Your task to perform on an android device: check data usage Image 0: 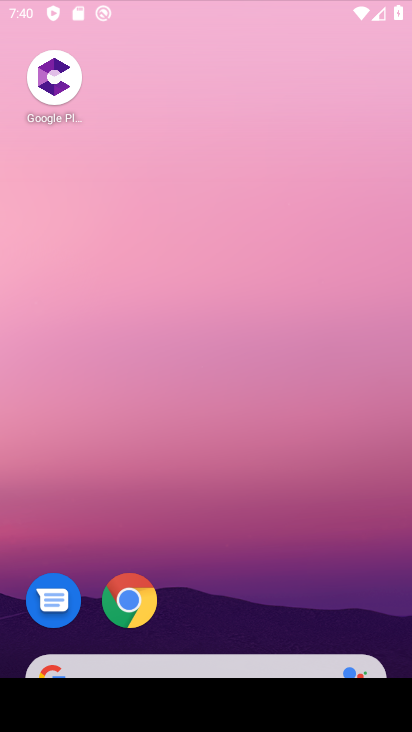
Step 0: click (234, 39)
Your task to perform on an android device: check data usage Image 1: 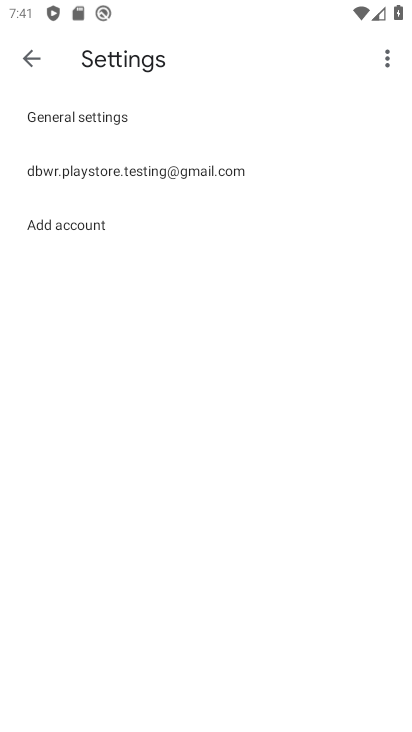
Step 1: drag from (206, 581) to (246, 68)
Your task to perform on an android device: check data usage Image 2: 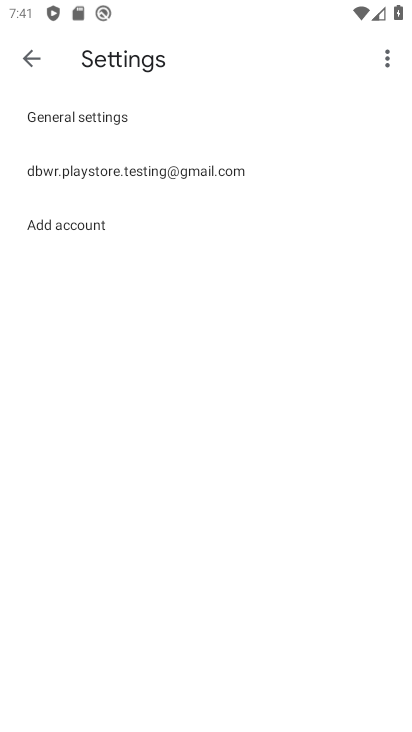
Step 2: press home button
Your task to perform on an android device: check data usage Image 3: 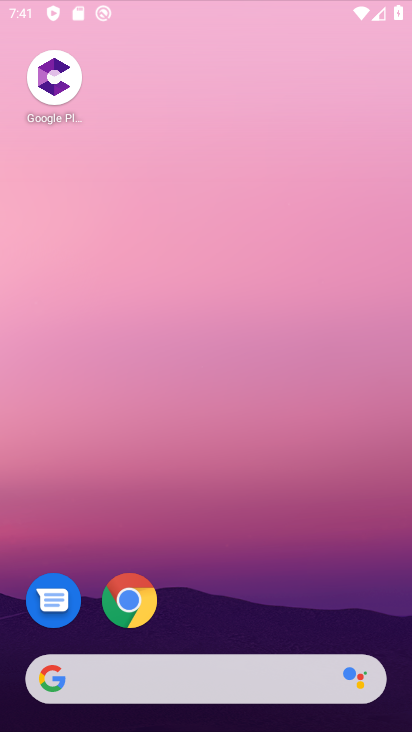
Step 3: click (250, 93)
Your task to perform on an android device: check data usage Image 4: 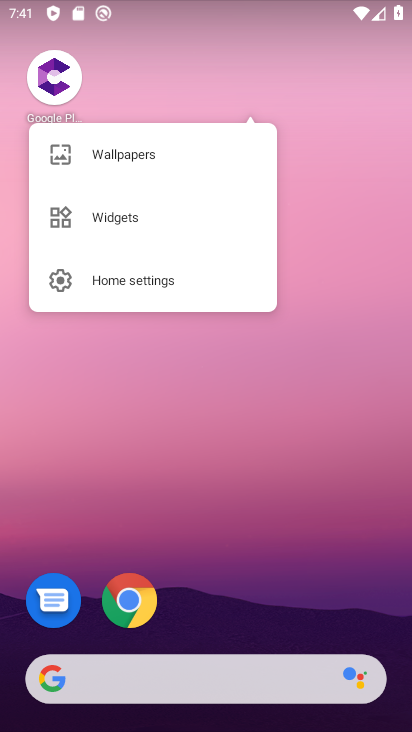
Step 4: drag from (230, 626) to (221, 140)
Your task to perform on an android device: check data usage Image 5: 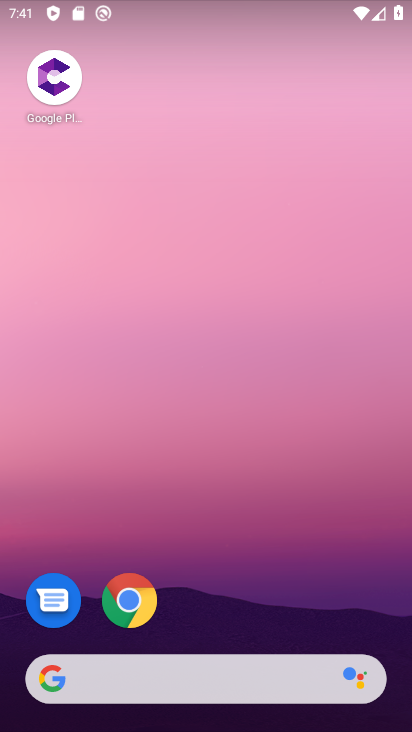
Step 5: drag from (198, 615) to (286, 96)
Your task to perform on an android device: check data usage Image 6: 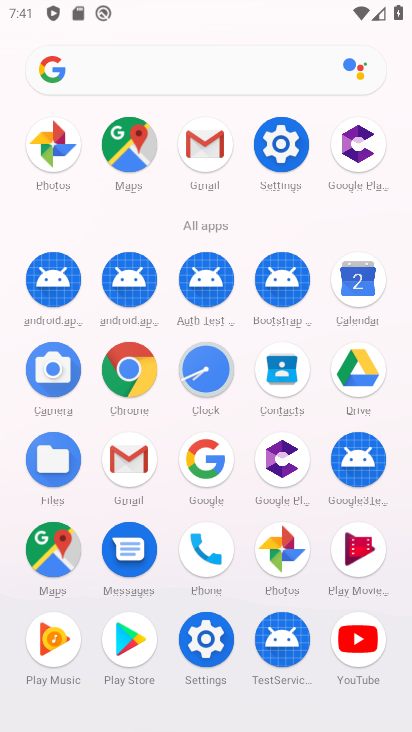
Step 6: click (279, 136)
Your task to perform on an android device: check data usage Image 7: 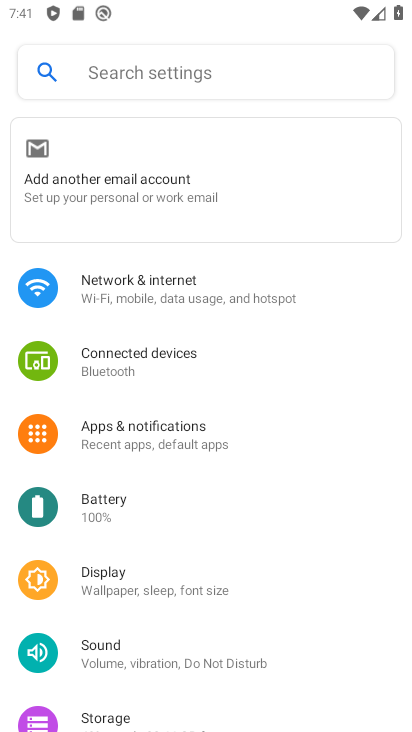
Step 7: click (204, 298)
Your task to perform on an android device: check data usage Image 8: 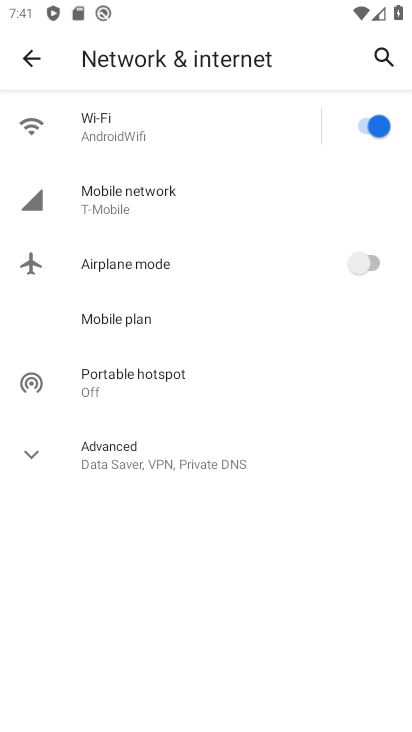
Step 8: click (195, 212)
Your task to perform on an android device: check data usage Image 9: 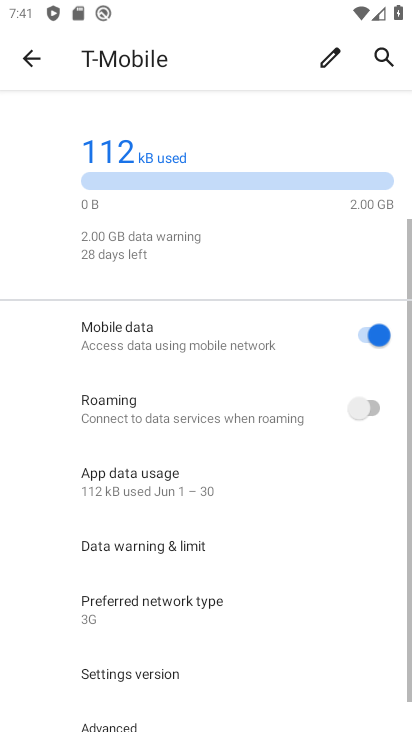
Step 9: task complete